Your task to perform on an android device: turn on javascript in the chrome app Image 0: 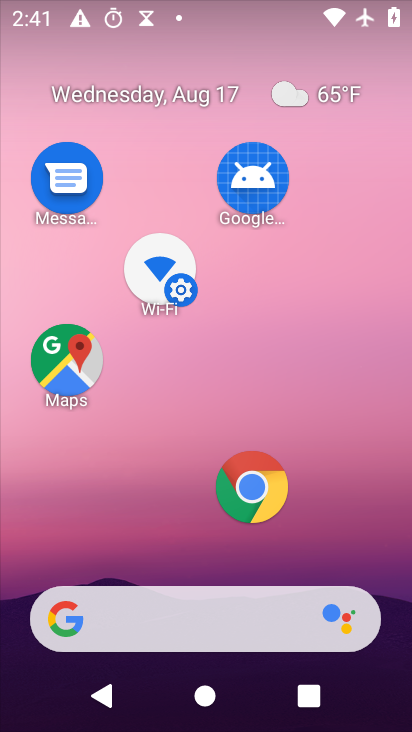
Step 0: press home button
Your task to perform on an android device: turn on javascript in the chrome app Image 1: 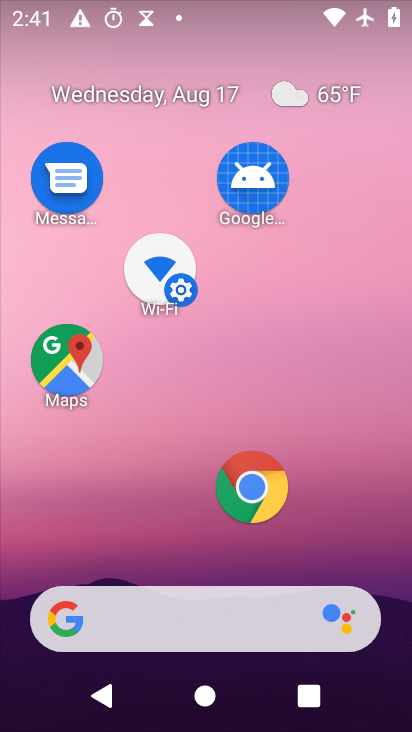
Step 1: click (256, 485)
Your task to perform on an android device: turn on javascript in the chrome app Image 2: 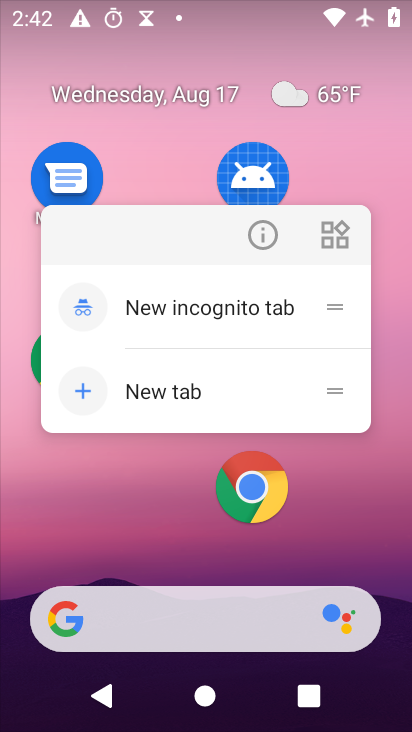
Step 2: click (256, 485)
Your task to perform on an android device: turn on javascript in the chrome app Image 3: 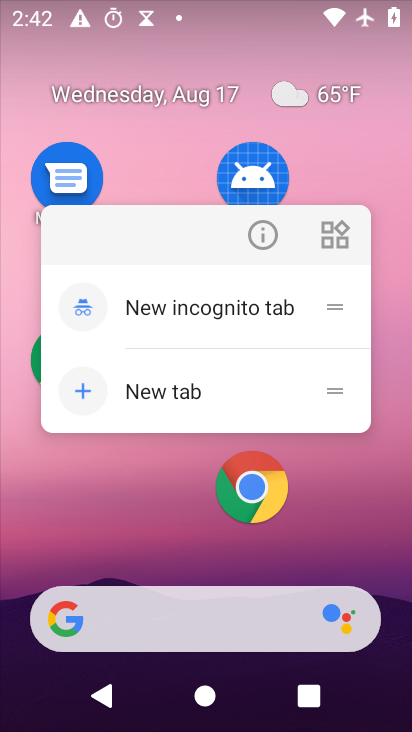
Step 3: click (256, 485)
Your task to perform on an android device: turn on javascript in the chrome app Image 4: 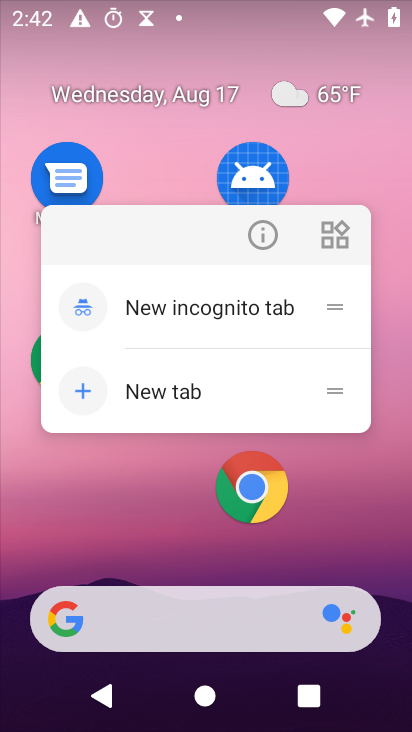
Step 4: click (256, 484)
Your task to perform on an android device: turn on javascript in the chrome app Image 5: 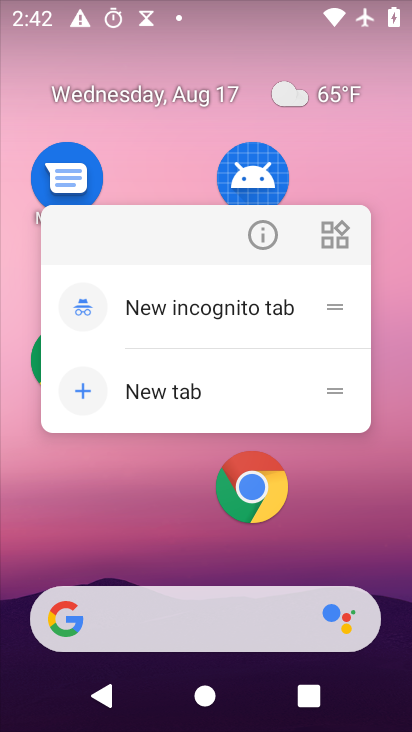
Step 5: click (256, 484)
Your task to perform on an android device: turn on javascript in the chrome app Image 6: 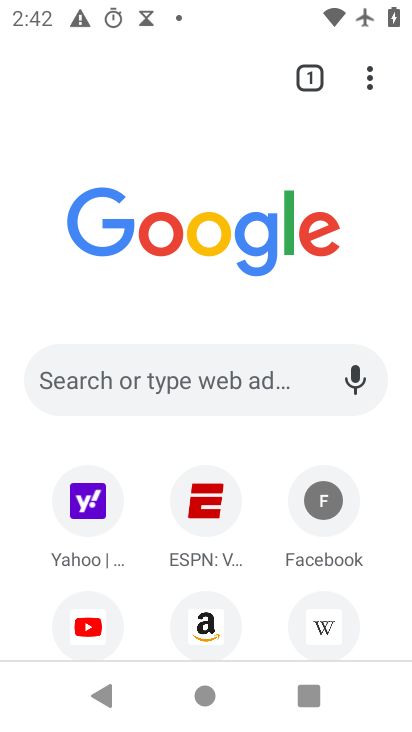
Step 6: drag from (377, 83) to (209, 583)
Your task to perform on an android device: turn on javascript in the chrome app Image 7: 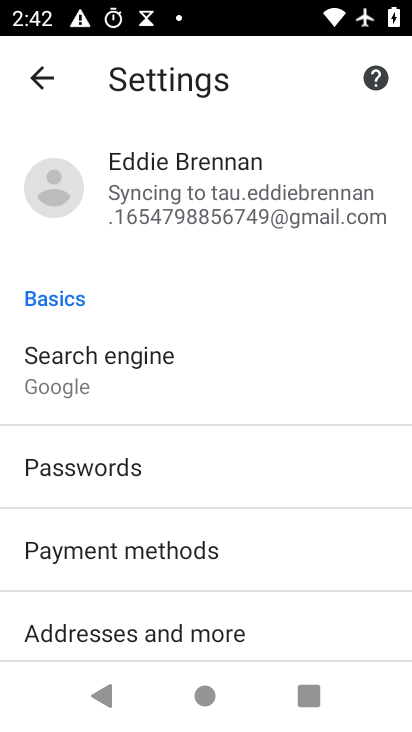
Step 7: drag from (337, 593) to (351, 129)
Your task to perform on an android device: turn on javascript in the chrome app Image 8: 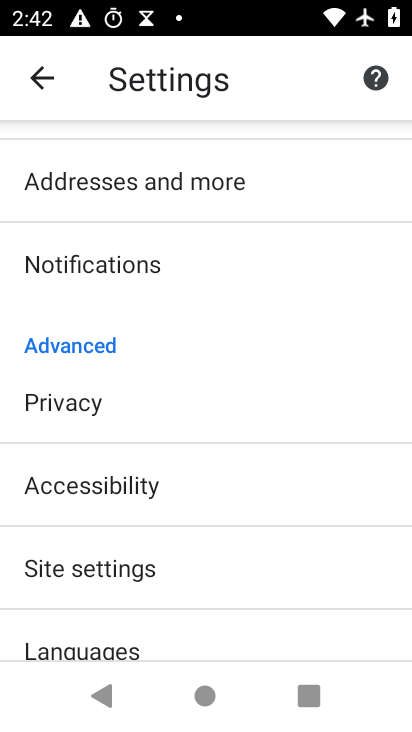
Step 8: click (48, 567)
Your task to perform on an android device: turn on javascript in the chrome app Image 9: 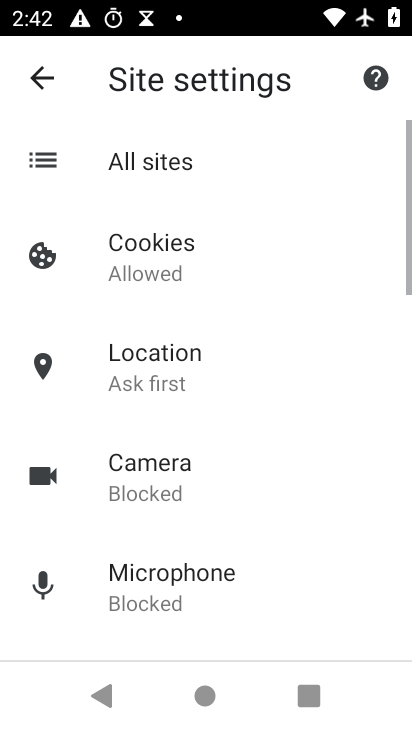
Step 9: drag from (385, 532) to (409, 126)
Your task to perform on an android device: turn on javascript in the chrome app Image 10: 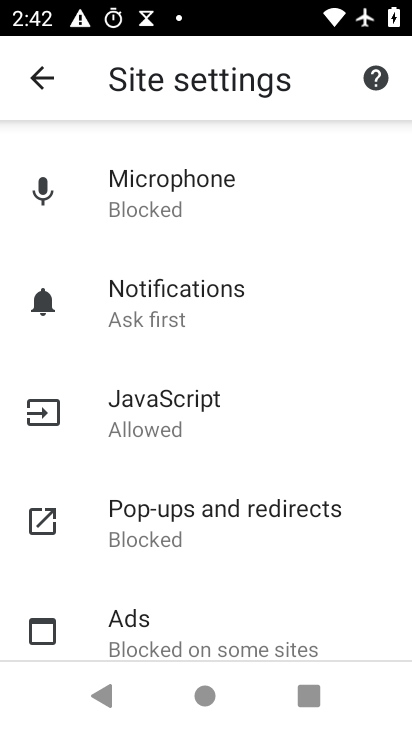
Step 10: click (179, 428)
Your task to perform on an android device: turn on javascript in the chrome app Image 11: 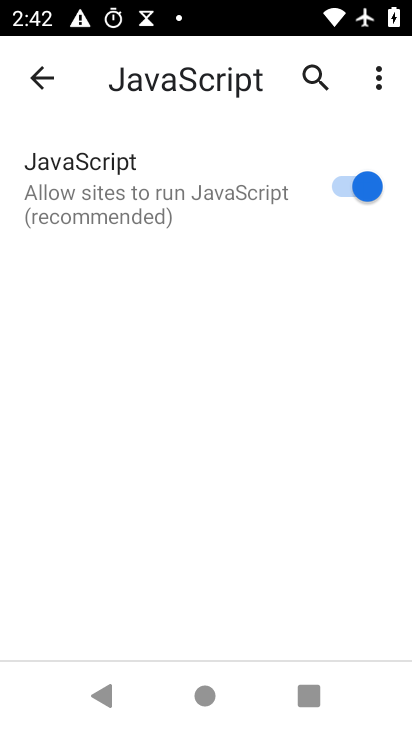
Step 11: task complete